Your task to perform on an android device: all mails in gmail Image 0: 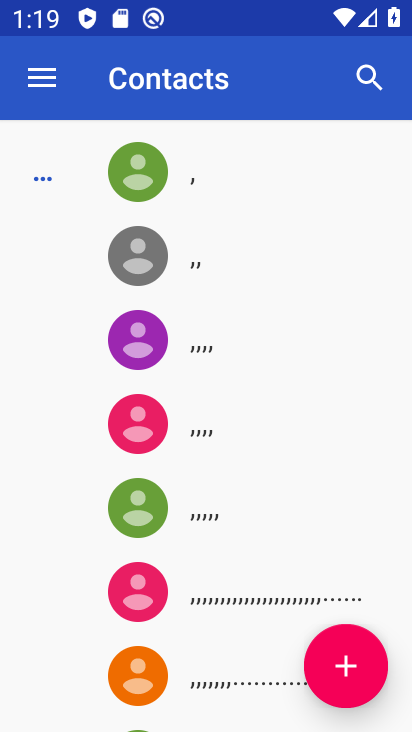
Step 0: press home button
Your task to perform on an android device: all mails in gmail Image 1: 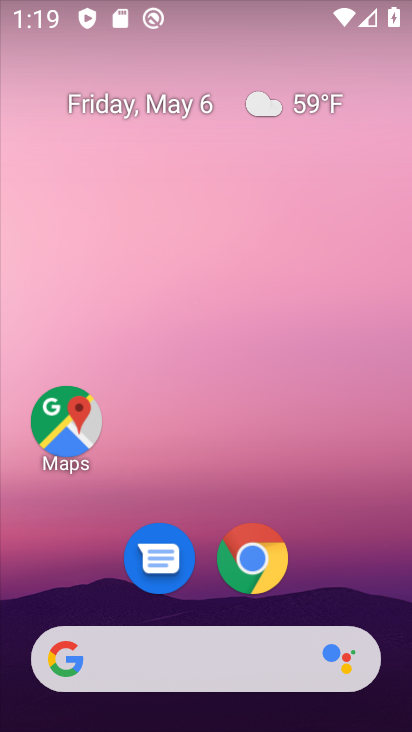
Step 1: drag from (211, 724) to (215, 438)
Your task to perform on an android device: all mails in gmail Image 2: 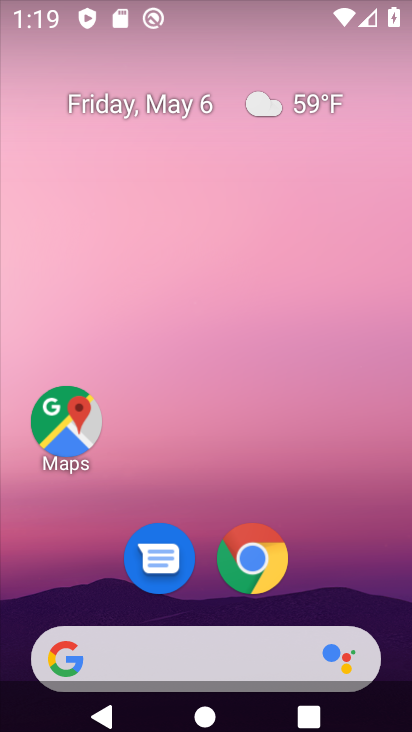
Step 2: drag from (206, 724) to (207, 114)
Your task to perform on an android device: all mails in gmail Image 3: 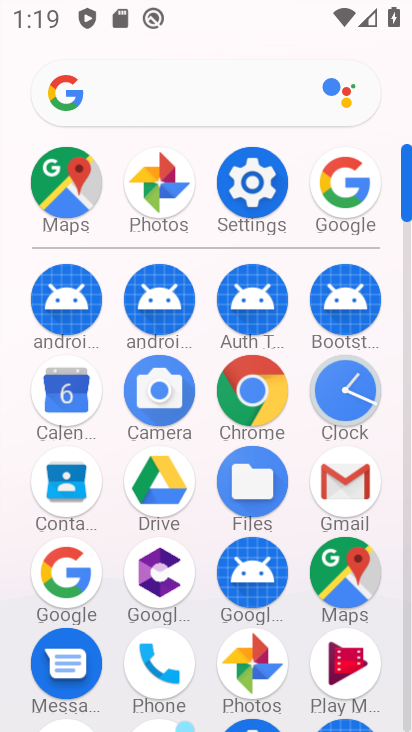
Step 3: click (328, 476)
Your task to perform on an android device: all mails in gmail Image 4: 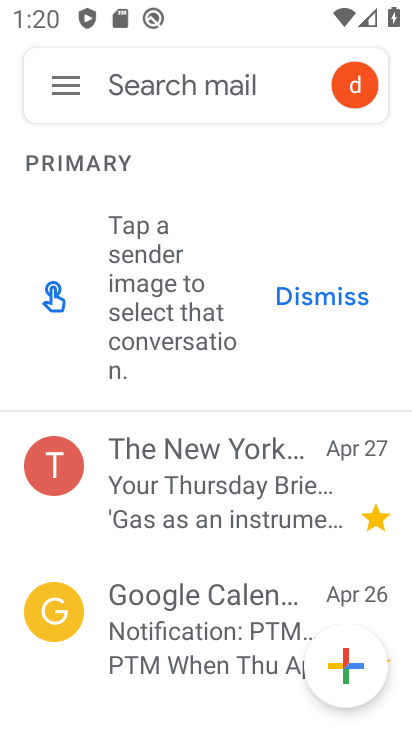
Step 4: click (66, 72)
Your task to perform on an android device: all mails in gmail Image 5: 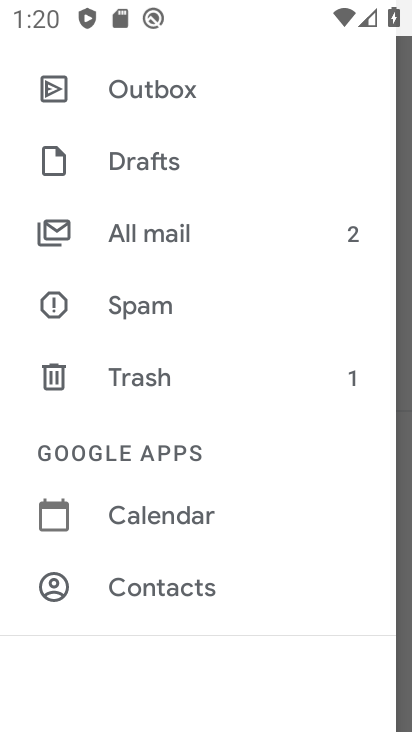
Step 5: click (144, 232)
Your task to perform on an android device: all mails in gmail Image 6: 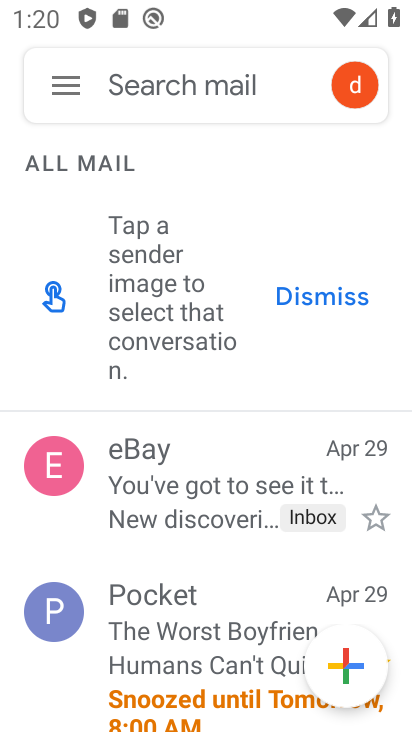
Step 6: task complete